Your task to perform on an android device: open sync settings in chrome Image 0: 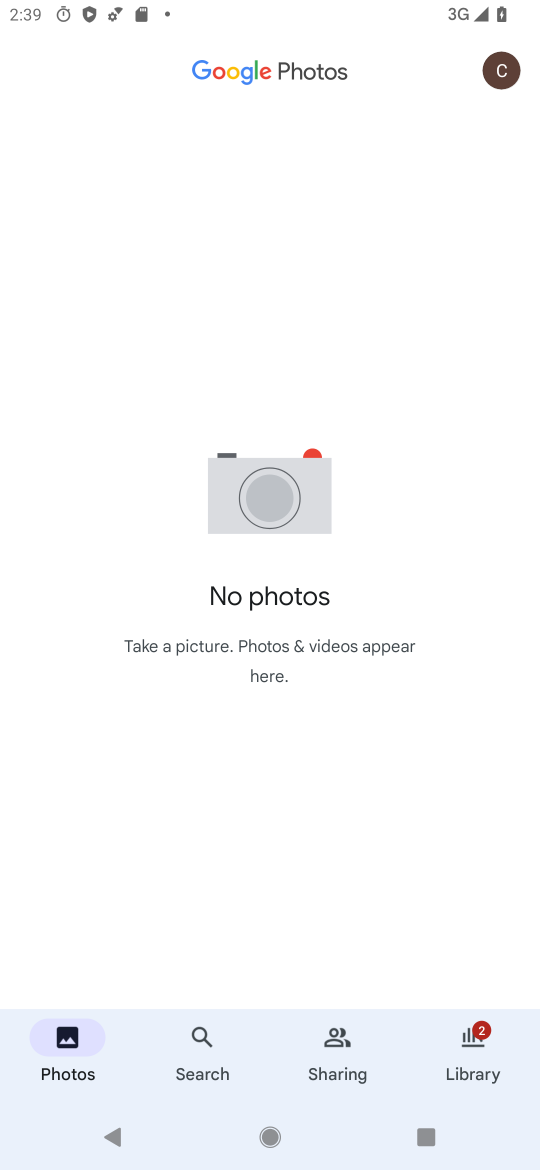
Step 0: press home button
Your task to perform on an android device: open sync settings in chrome Image 1: 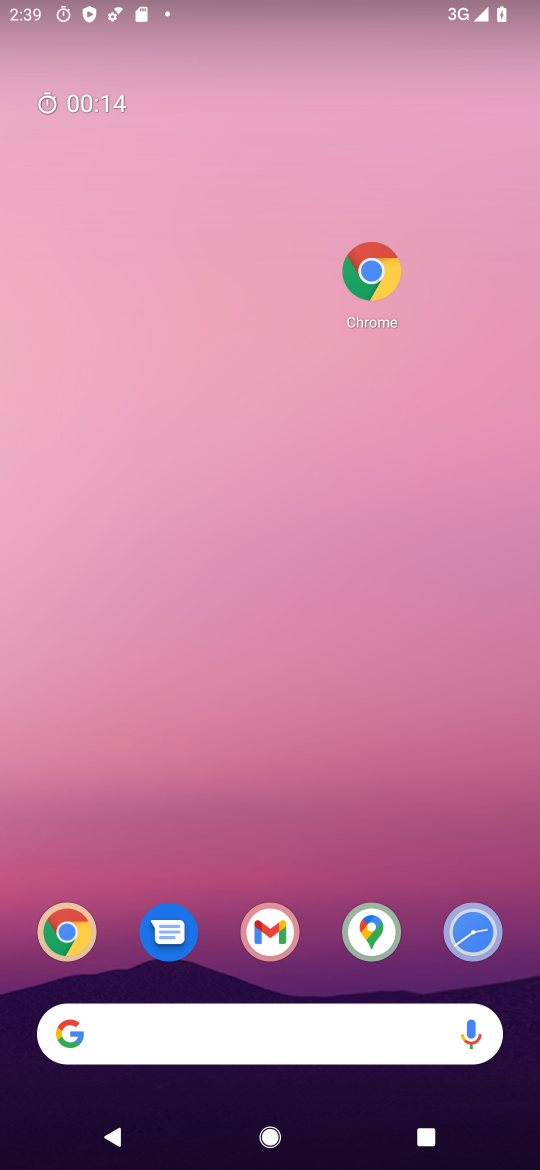
Step 1: drag from (300, 970) to (432, 113)
Your task to perform on an android device: open sync settings in chrome Image 2: 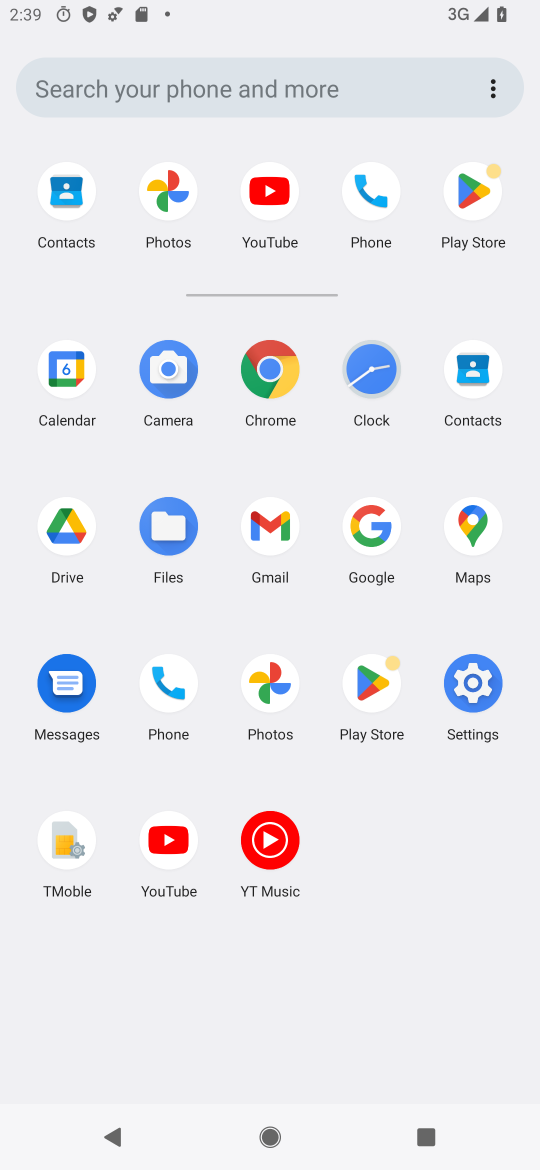
Step 2: click (277, 373)
Your task to perform on an android device: open sync settings in chrome Image 3: 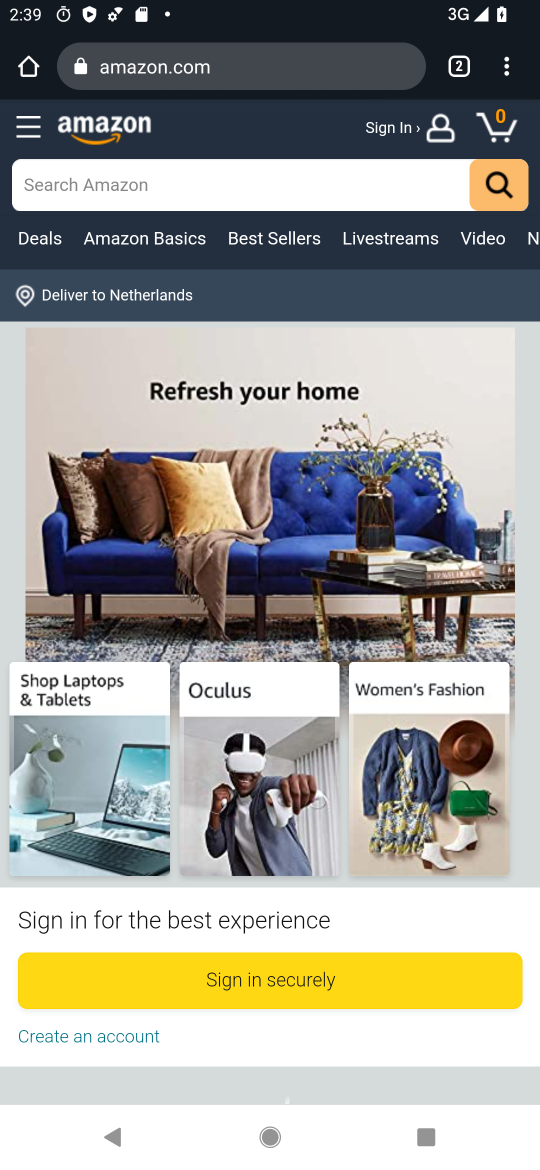
Step 3: drag from (515, 59) to (504, 203)
Your task to perform on an android device: open sync settings in chrome Image 4: 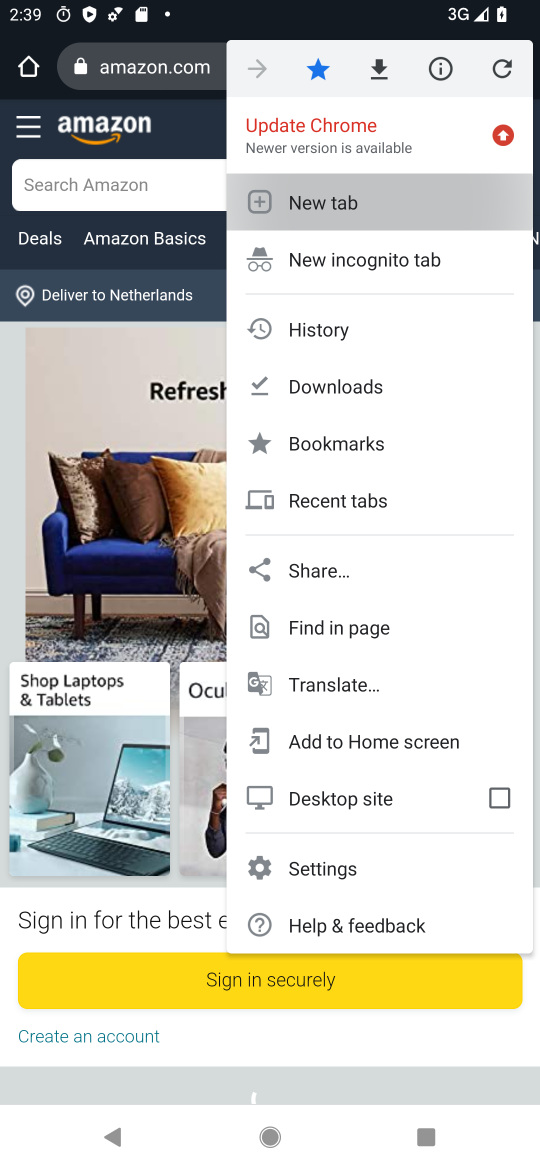
Step 4: click (504, 203)
Your task to perform on an android device: open sync settings in chrome Image 5: 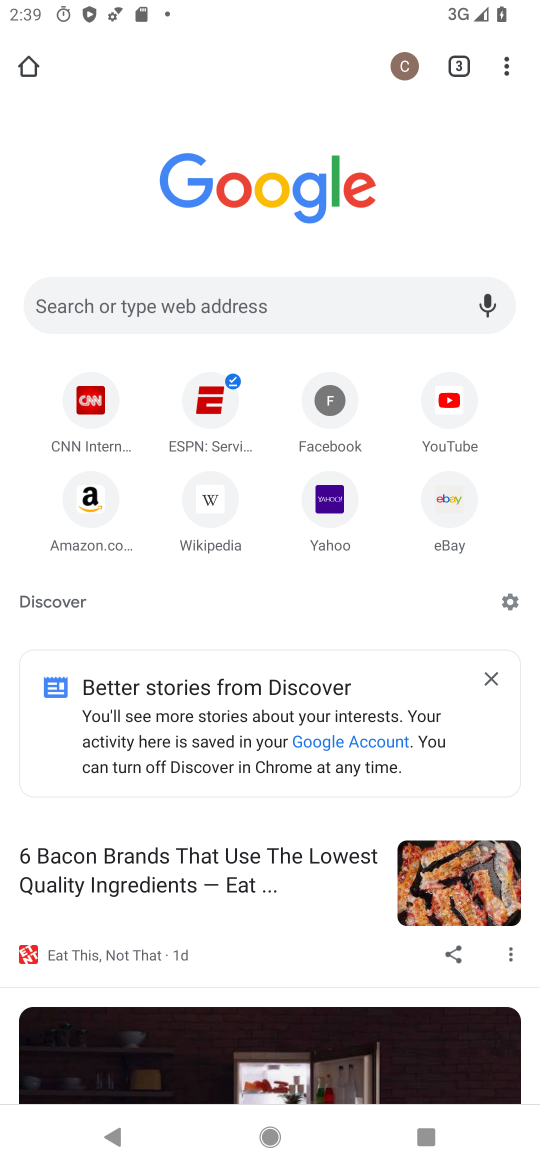
Step 5: drag from (504, 53) to (352, 628)
Your task to perform on an android device: open sync settings in chrome Image 6: 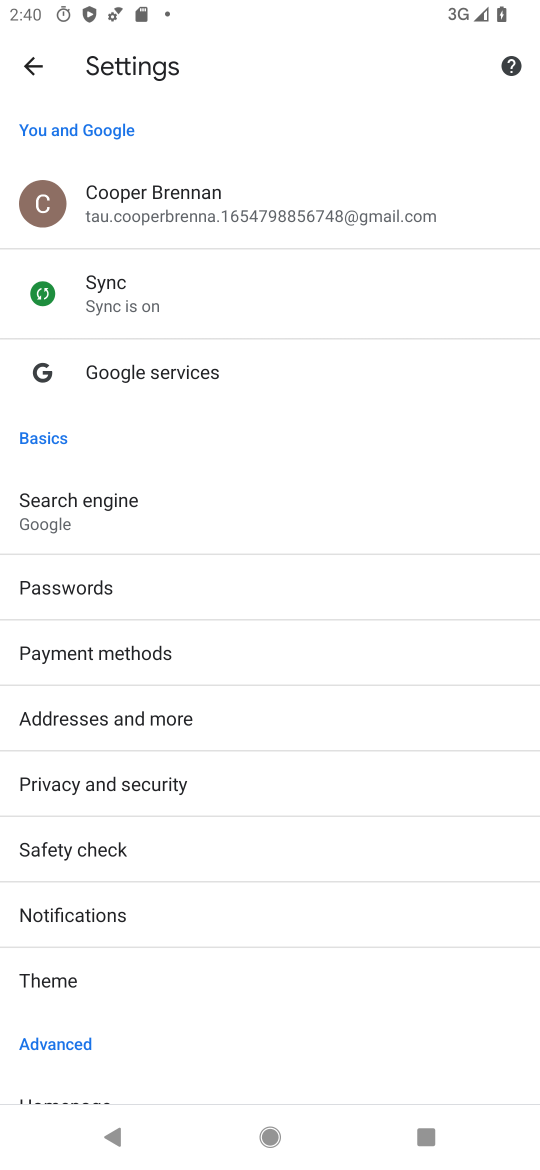
Step 6: click (120, 312)
Your task to perform on an android device: open sync settings in chrome Image 7: 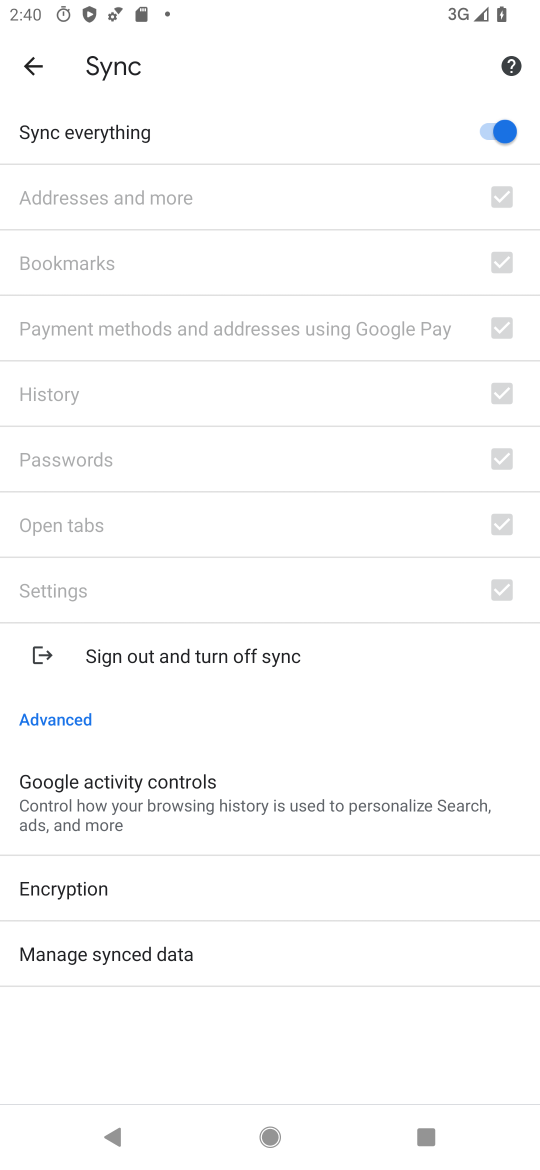
Step 7: task complete